Your task to perform on an android device: Go to ESPN.com Image 0: 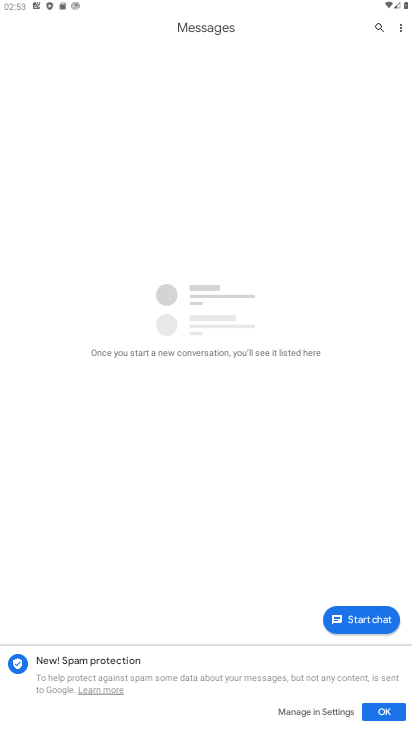
Step 0: press home button
Your task to perform on an android device: Go to ESPN.com Image 1: 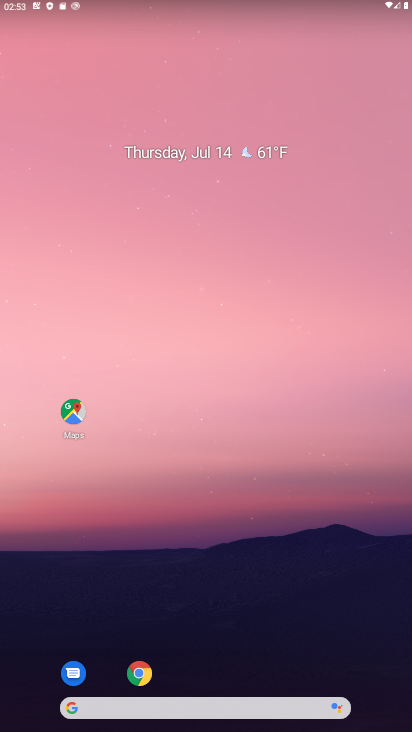
Step 1: click (213, 708)
Your task to perform on an android device: Go to ESPN.com Image 2: 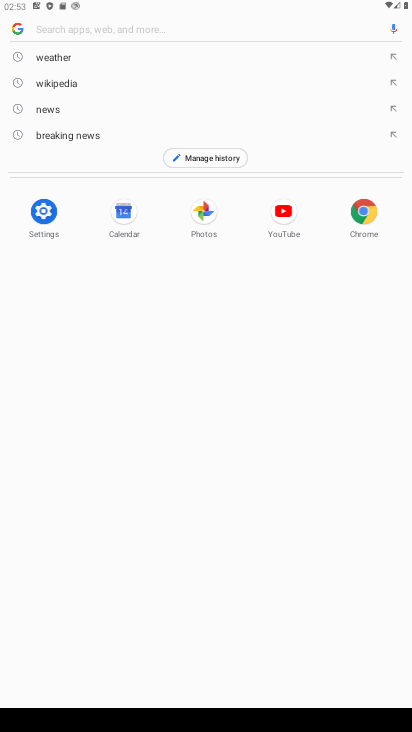
Step 2: type "espn.com"
Your task to perform on an android device: Go to ESPN.com Image 3: 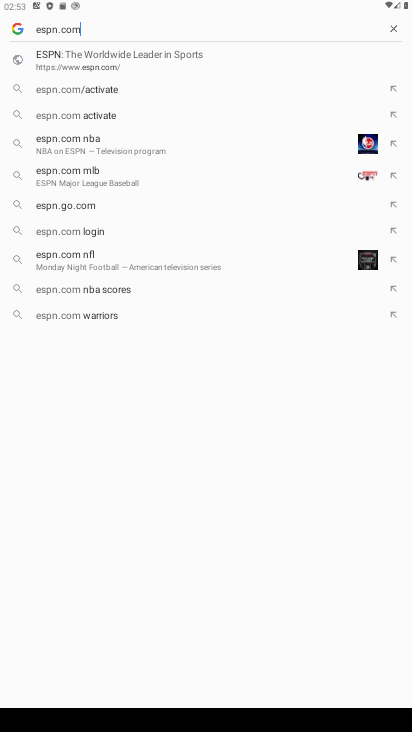
Step 3: click (184, 68)
Your task to perform on an android device: Go to ESPN.com Image 4: 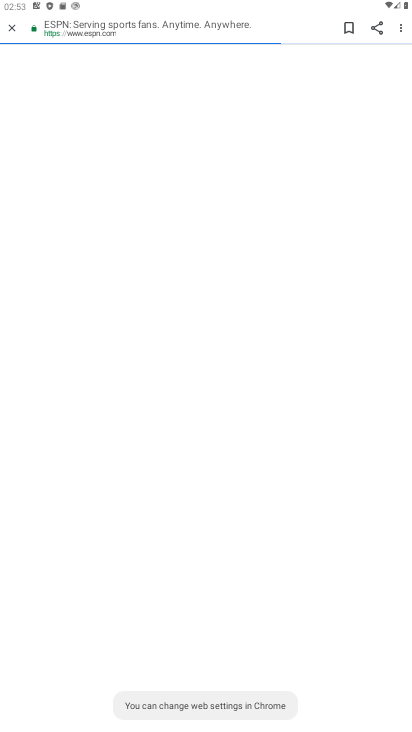
Step 4: task complete